Your task to perform on an android device: What's on my calendar tomorrow? Image 0: 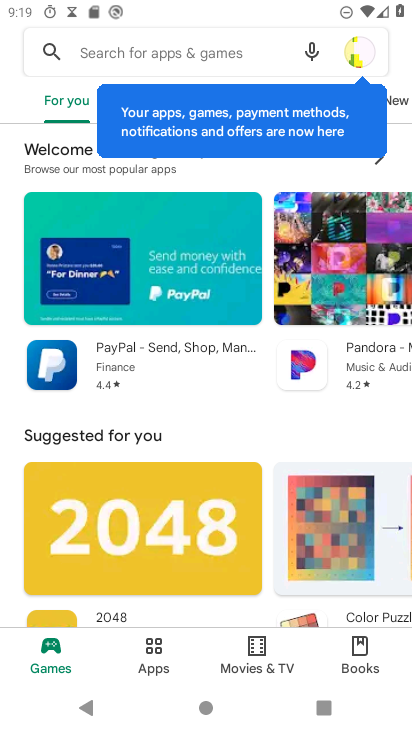
Step 0: press home button
Your task to perform on an android device: What's on my calendar tomorrow? Image 1: 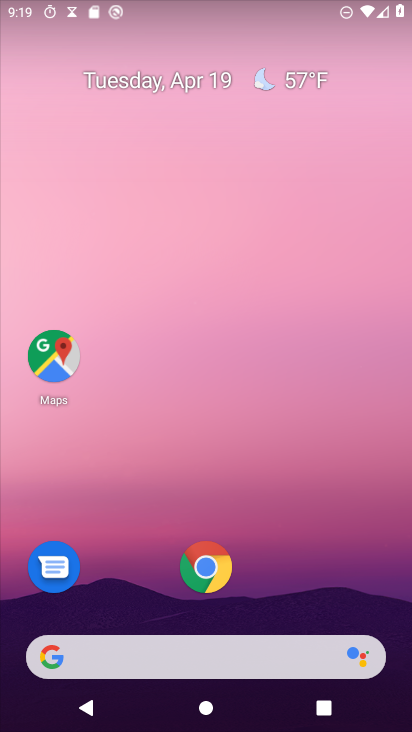
Step 1: drag from (290, 582) to (284, 86)
Your task to perform on an android device: What's on my calendar tomorrow? Image 2: 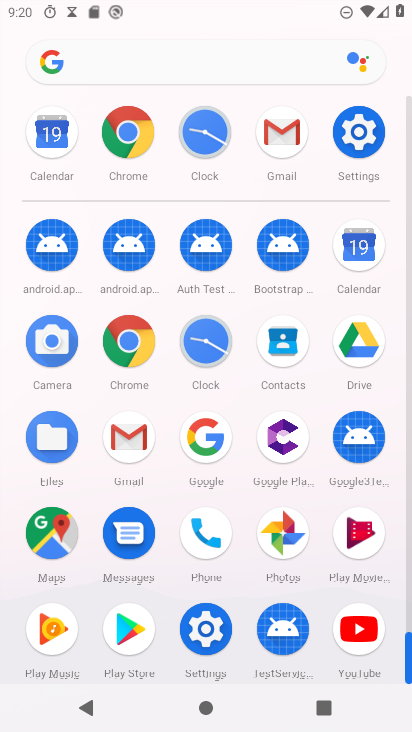
Step 2: click (364, 244)
Your task to perform on an android device: What's on my calendar tomorrow? Image 3: 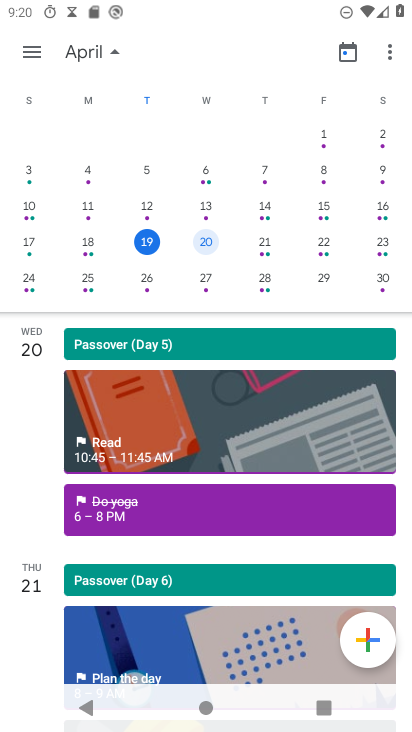
Step 3: click (200, 246)
Your task to perform on an android device: What's on my calendar tomorrow? Image 4: 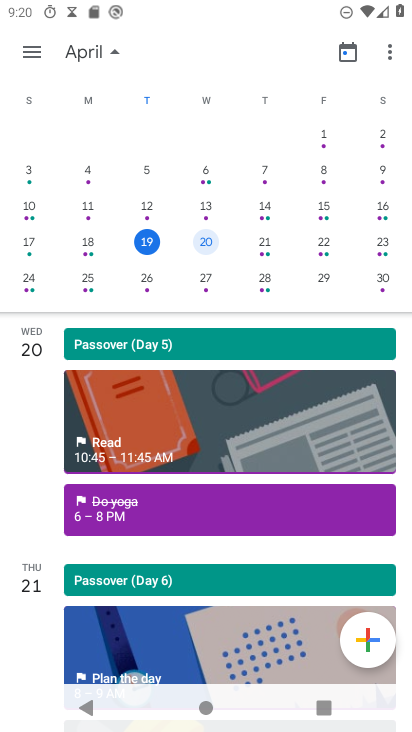
Step 4: click (206, 238)
Your task to perform on an android device: What's on my calendar tomorrow? Image 5: 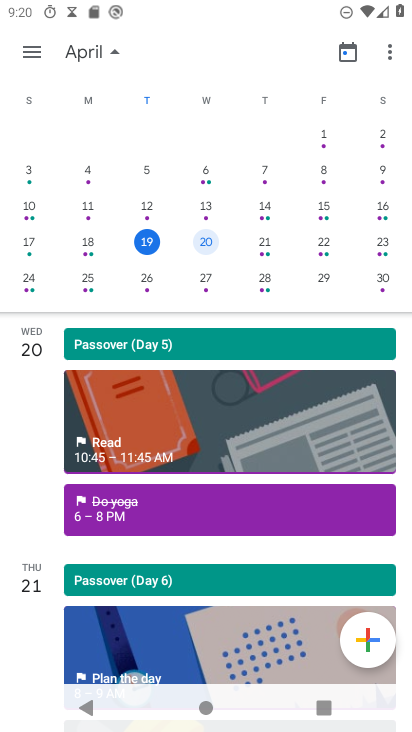
Step 5: click (209, 244)
Your task to perform on an android device: What's on my calendar tomorrow? Image 6: 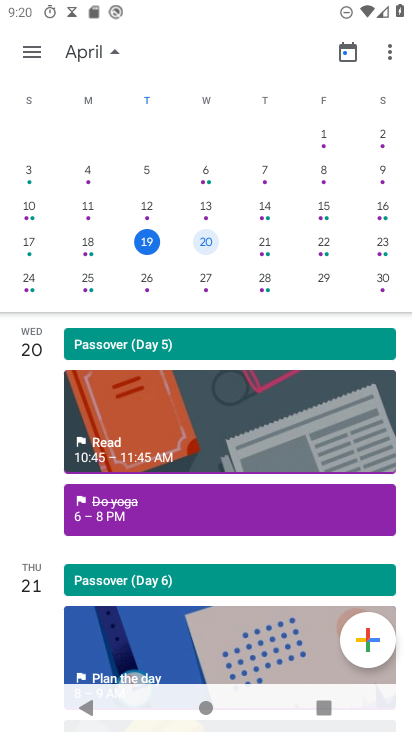
Step 6: click (202, 248)
Your task to perform on an android device: What's on my calendar tomorrow? Image 7: 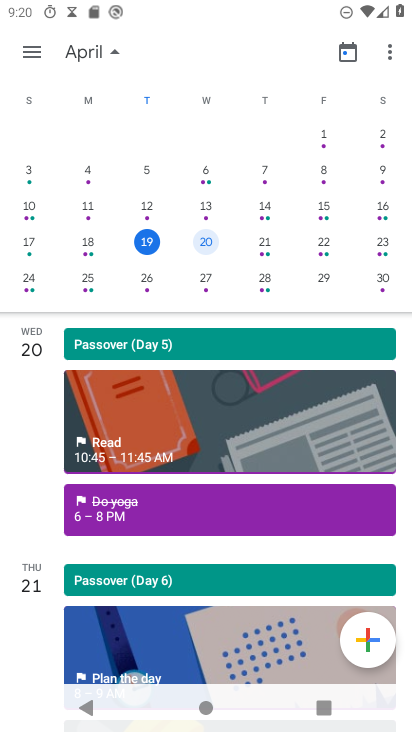
Step 7: click (202, 248)
Your task to perform on an android device: What's on my calendar tomorrow? Image 8: 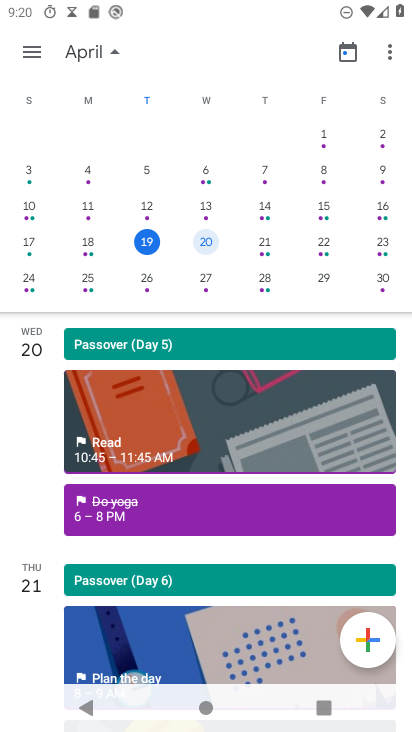
Step 8: click (200, 248)
Your task to perform on an android device: What's on my calendar tomorrow? Image 9: 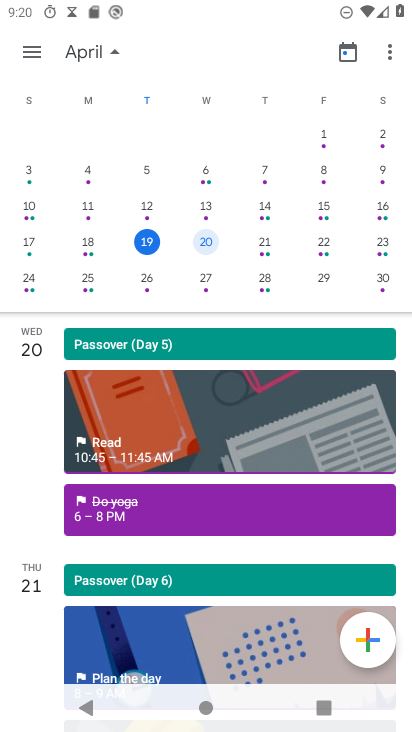
Step 9: task complete